Your task to perform on an android device: Check the news Image 0: 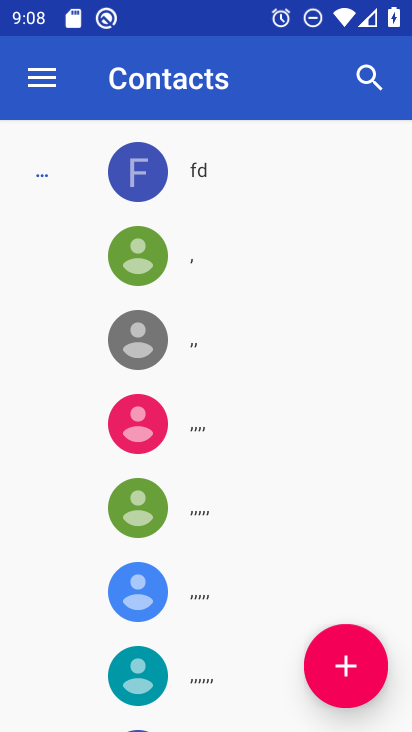
Step 0: press home button
Your task to perform on an android device: Check the news Image 1: 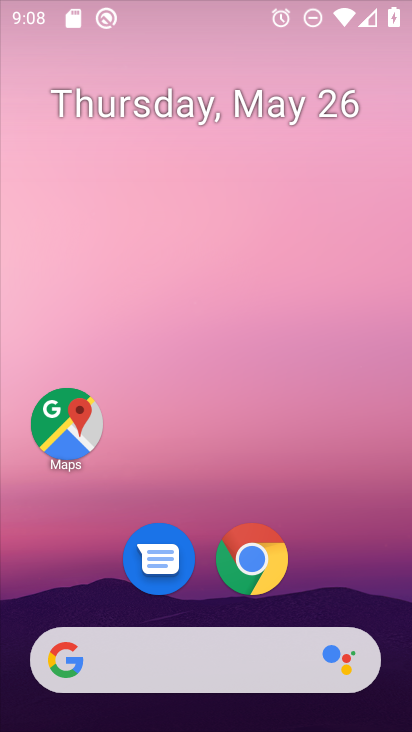
Step 1: drag from (207, 601) to (222, 129)
Your task to perform on an android device: Check the news Image 2: 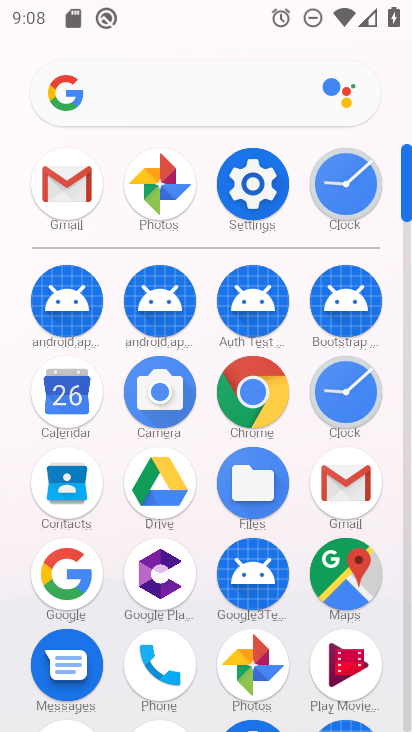
Step 2: click (60, 571)
Your task to perform on an android device: Check the news Image 3: 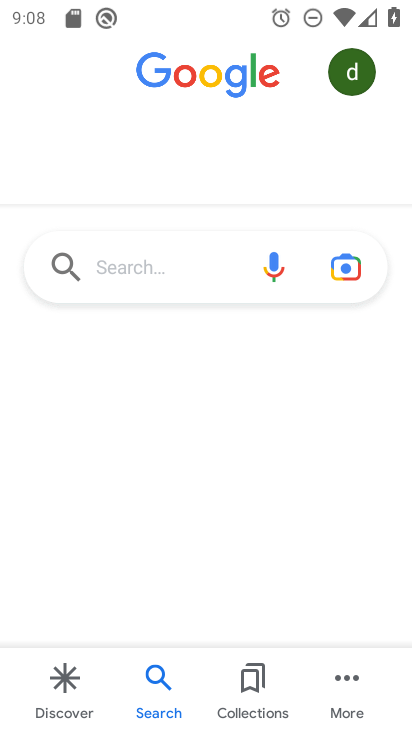
Step 3: click (141, 278)
Your task to perform on an android device: Check the news Image 4: 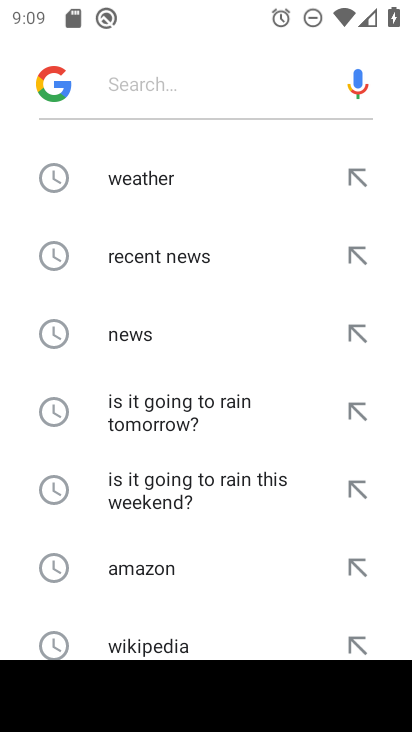
Step 4: click (151, 347)
Your task to perform on an android device: Check the news Image 5: 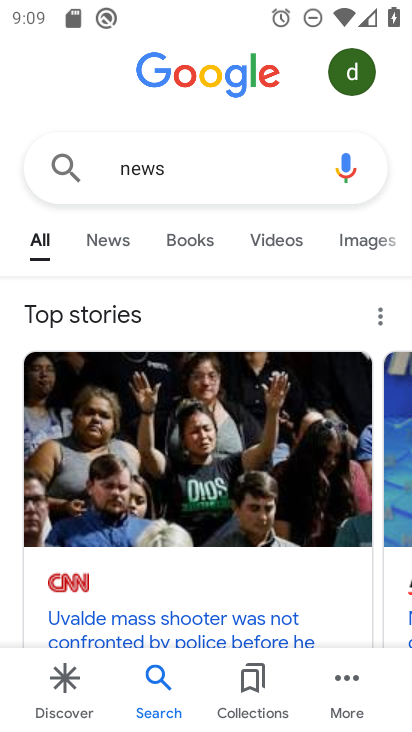
Step 5: task complete